Your task to perform on an android device: Go to Yahoo.com Image 0: 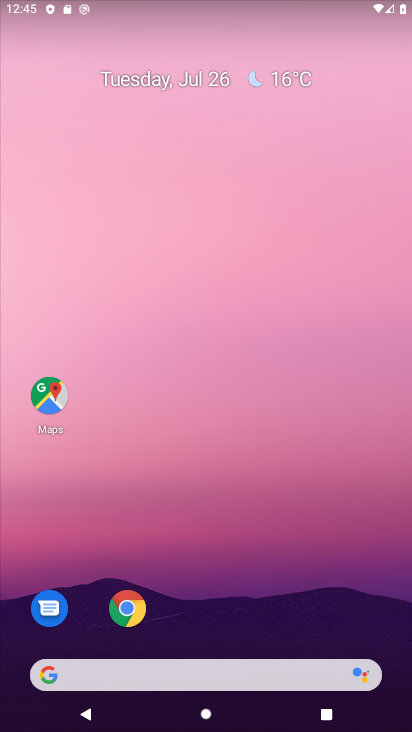
Step 0: drag from (314, 646) to (145, 119)
Your task to perform on an android device: Go to Yahoo.com Image 1: 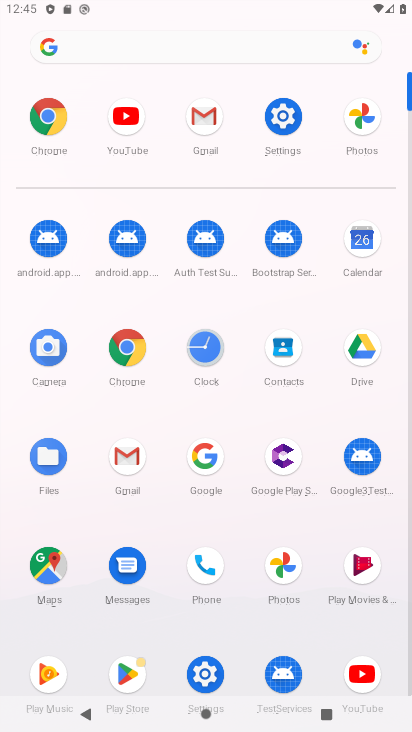
Step 1: click (216, 44)
Your task to perform on an android device: Go to Yahoo.com Image 2: 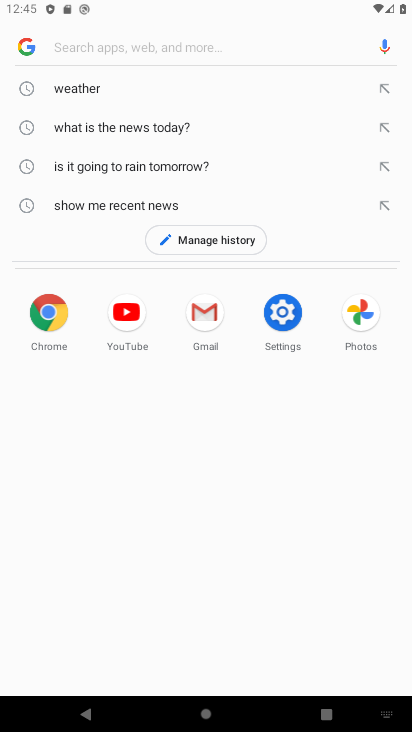
Step 2: type "yahoo.com"
Your task to perform on an android device: Go to Yahoo.com Image 3: 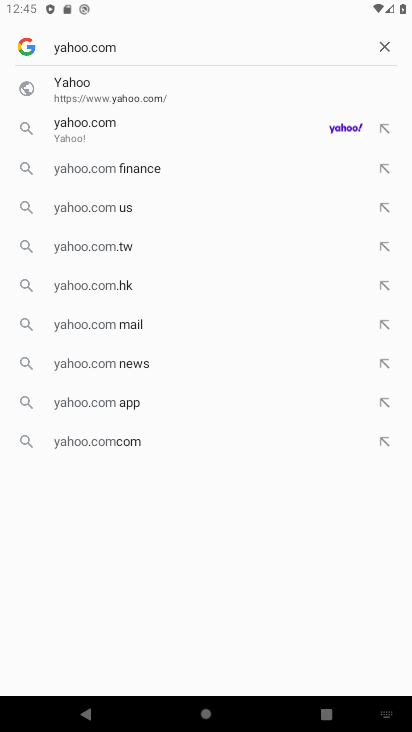
Step 3: click (157, 103)
Your task to perform on an android device: Go to Yahoo.com Image 4: 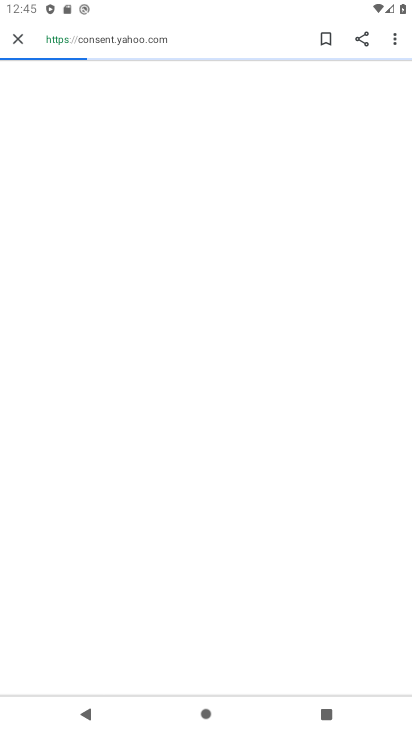
Step 4: task complete